Your task to perform on an android device: Open settings Image 0: 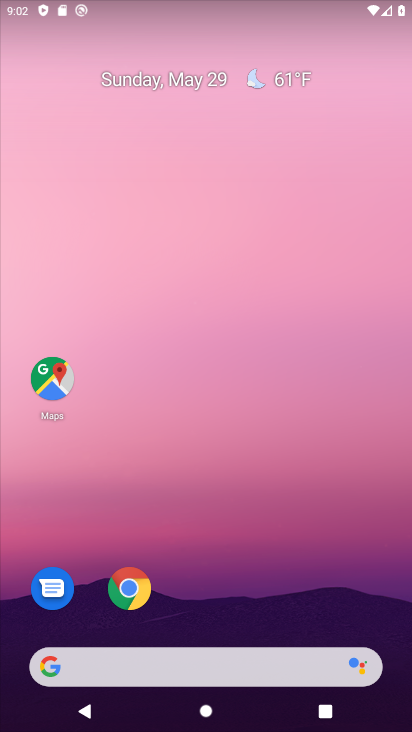
Step 0: drag from (272, 353) to (276, 55)
Your task to perform on an android device: Open settings Image 1: 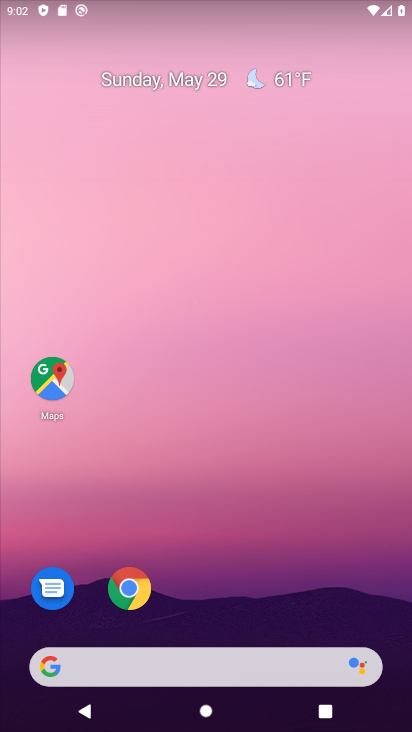
Step 1: drag from (262, 389) to (251, 6)
Your task to perform on an android device: Open settings Image 2: 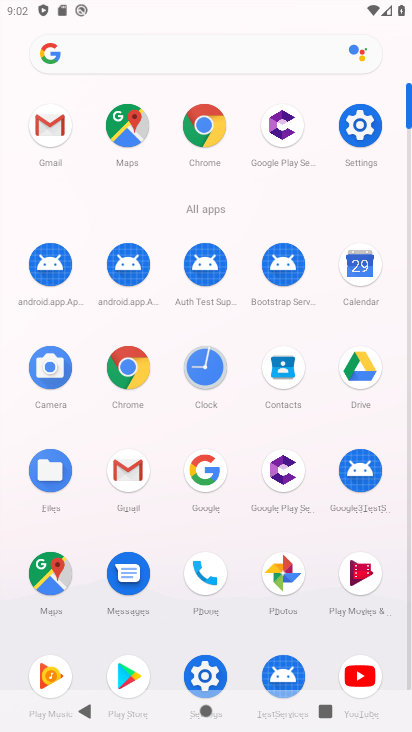
Step 2: click (364, 112)
Your task to perform on an android device: Open settings Image 3: 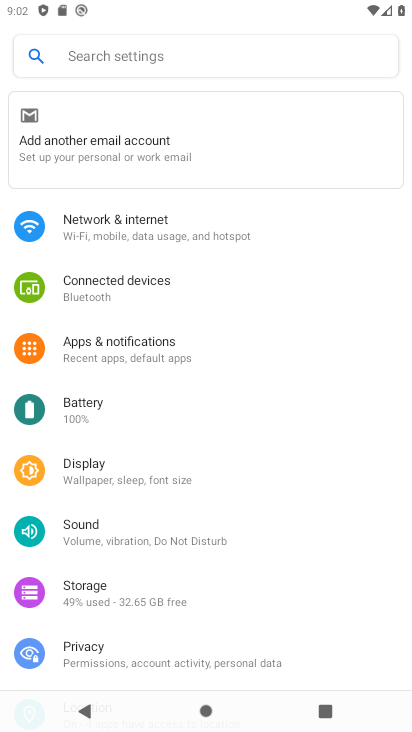
Step 3: task complete